Your task to perform on an android device: Open CNN.com Image 0: 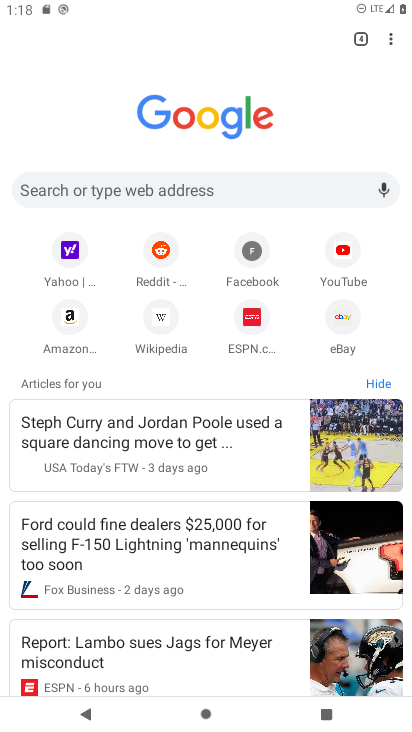
Step 0: click (271, 192)
Your task to perform on an android device: Open CNN.com Image 1: 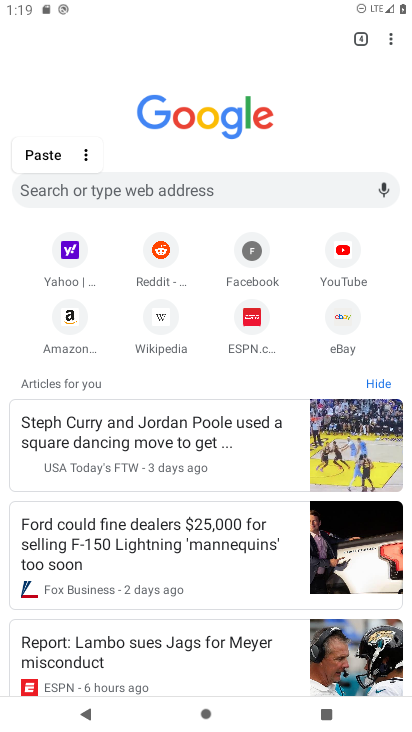
Step 1: type "cnn.com"
Your task to perform on an android device: Open CNN.com Image 2: 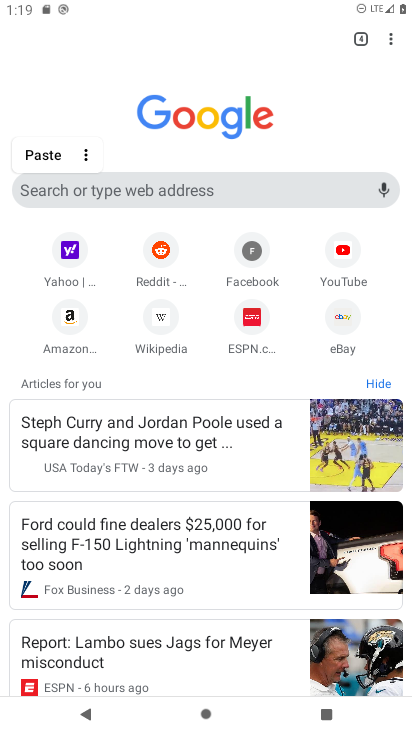
Step 2: click (180, 180)
Your task to perform on an android device: Open CNN.com Image 3: 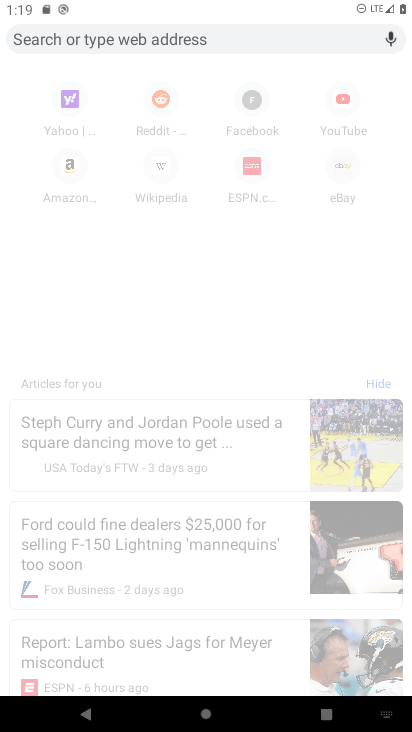
Step 3: type "cnn.com"
Your task to perform on an android device: Open CNN.com Image 4: 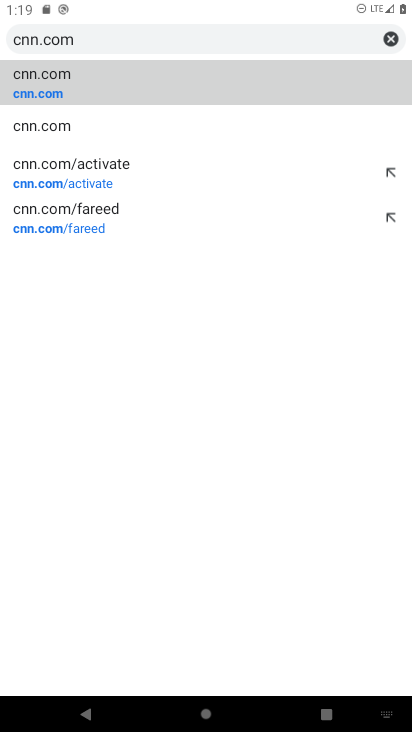
Step 4: click (47, 121)
Your task to perform on an android device: Open CNN.com Image 5: 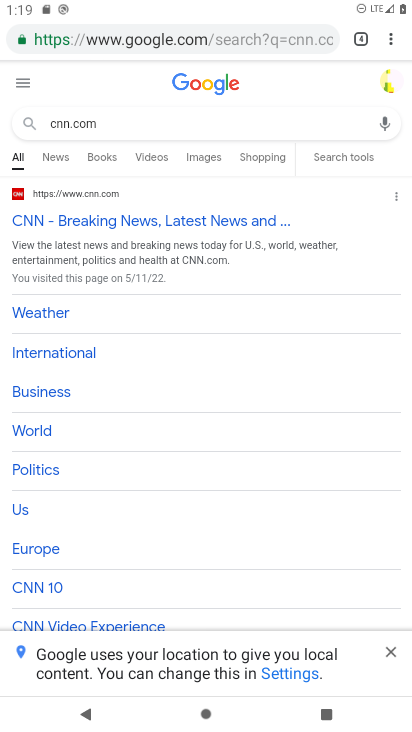
Step 5: click (129, 216)
Your task to perform on an android device: Open CNN.com Image 6: 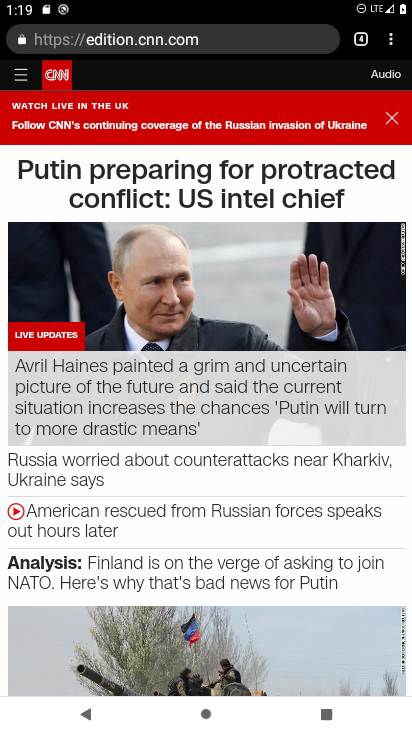
Step 6: task complete